Your task to perform on an android device: turn off priority inbox in the gmail app Image 0: 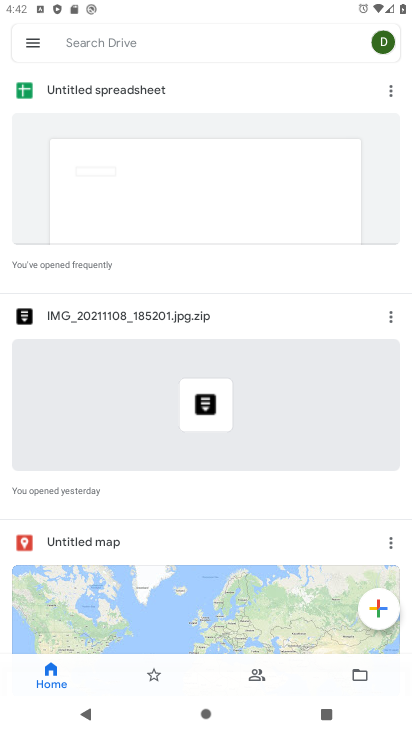
Step 0: press home button
Your task to perform on an android device: turn off priority inbox in the gmail app Image 1: 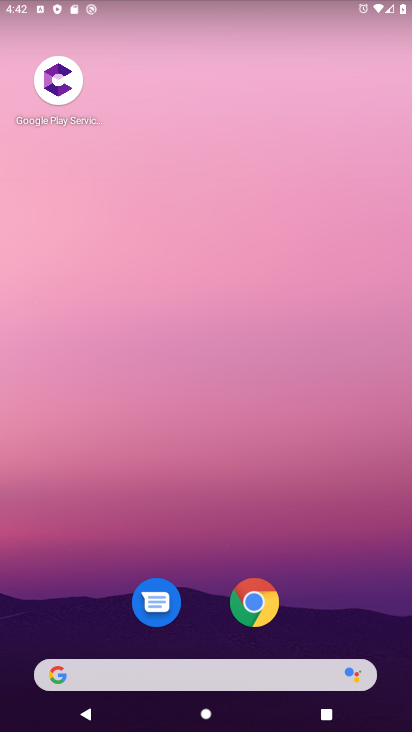
Step 1: drag from (205, 249) to (217, 161)
Your task to perform on an android device: turn off priority inbox in the gmail app Image 2: 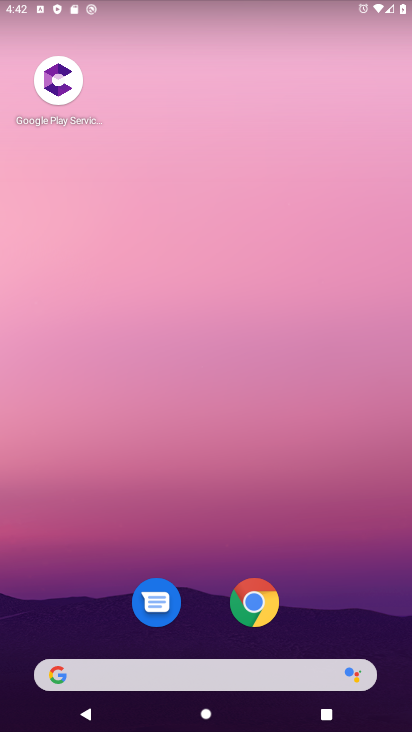
Step 2: drag from (222, 657) to (230, 144)
Your task to perform on an android device: turn off priority inbox in the gmail app Image 3: 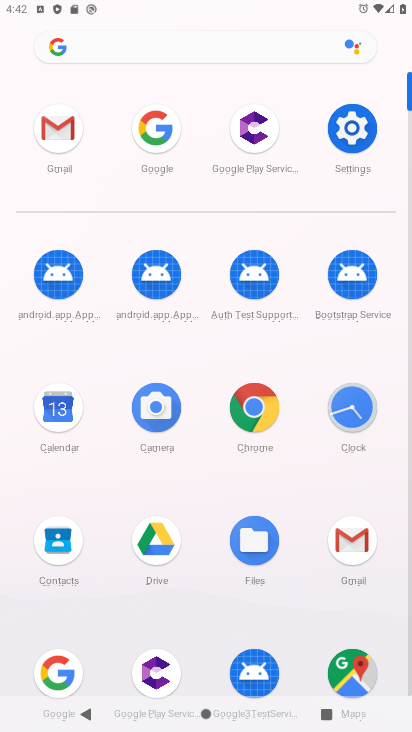
Step 3: click (64, 123)
Your task to perform on an android device: turn off priority inbox in the gmail app Image 4: 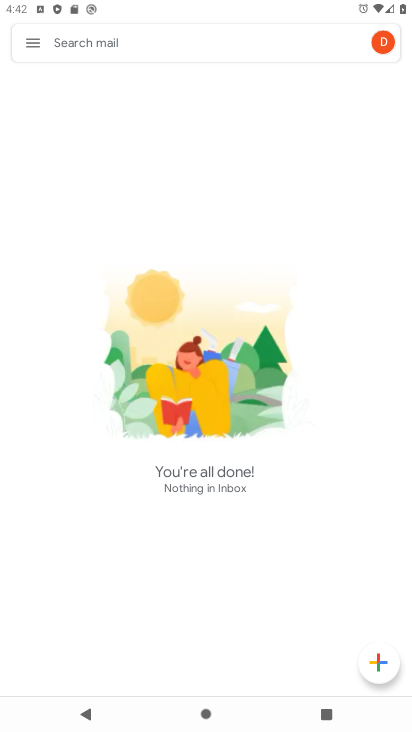
Step 4: click (34, 41)
Your task to perform on an android device: turn off priority inbox in the gmail app Image 5: 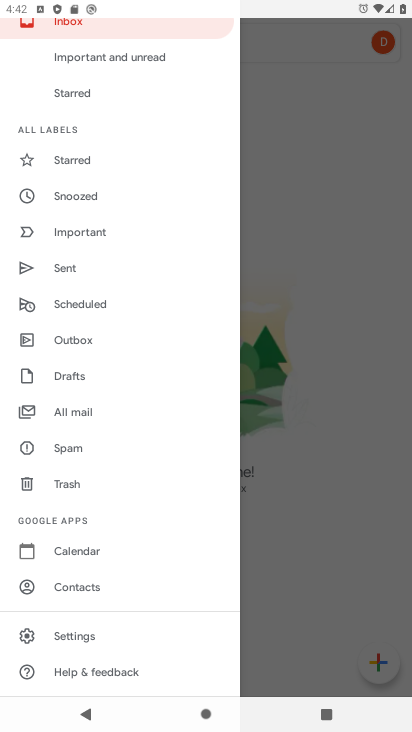
Step 5: click (83, 640)
Your task to perform on an android device: turn off priority inbox in the gmail app Image 6: 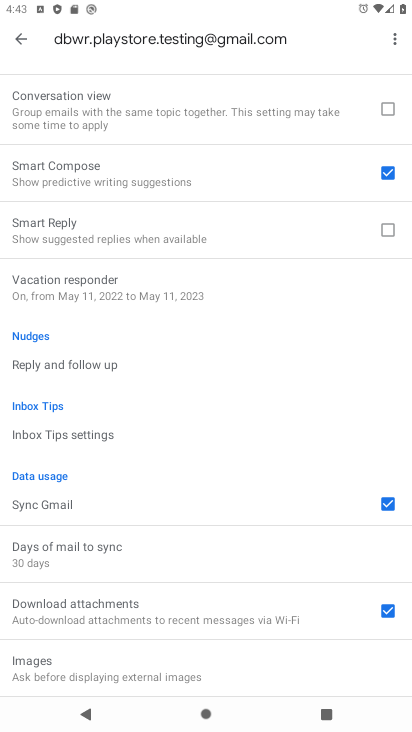
Step 6: drag from (130, 106) to (191, 550)
Your task to perform on an android device: turn off priority inbox in the gmail app Image 7: 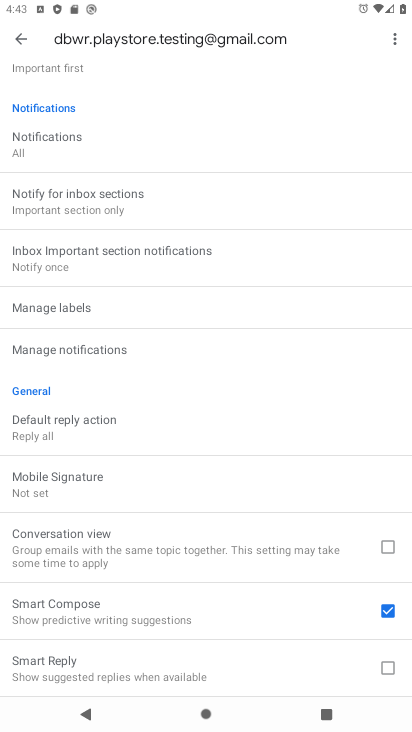
Step 7: drag from (111, 115) to (140, 489)
Your task to perform on an android device: turn off priority inbox in the gmail app Image 8: 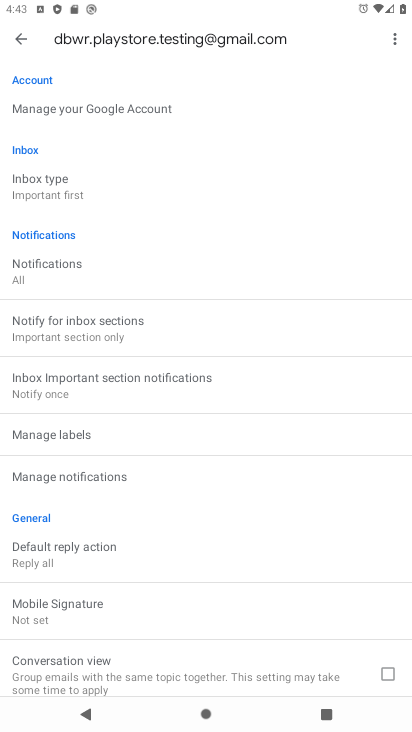
Step 8: click (47, 187)
Your task to perform on an android device: turn off priority inbox in the gmail app Image 9: 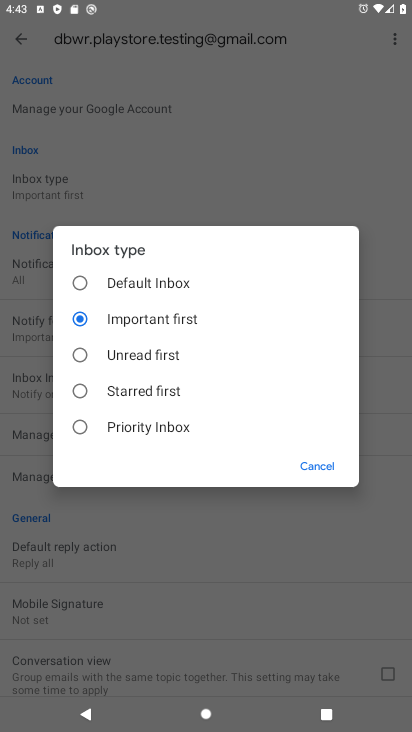
Step 9: click (155, 429)
Your task to perform on an android device: turn off priority inbox in the gmail app Image 10: 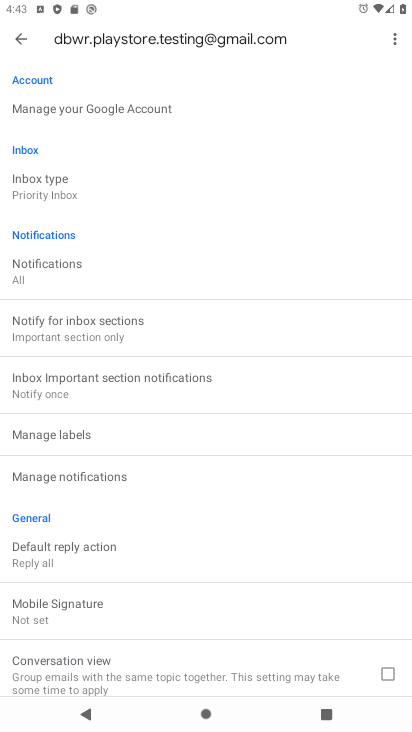
Step 10: task complete